Your task to perform on an android device: Go to settings Image 0: 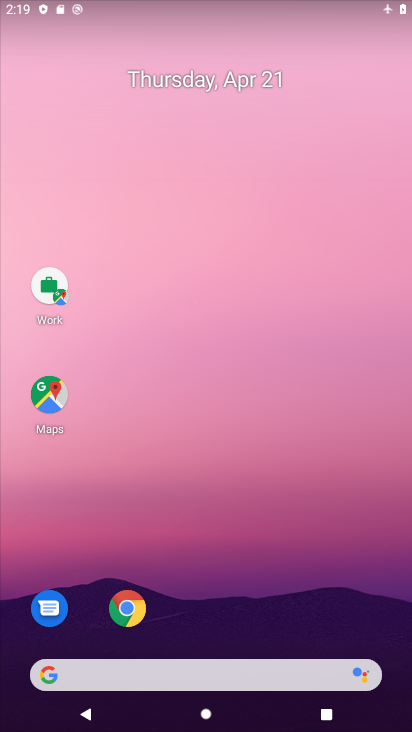
Step 0: drag from (176, 180) to (220, 1)
Your task to perform on an android device: Go to settings Image 1: 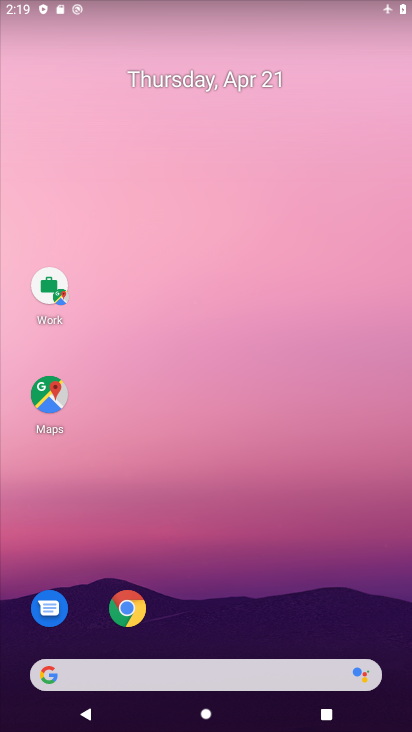
Step 1: drag from (226, 482) to (276, 50)
Your task to perform on an android device: Go to settings Image 2: 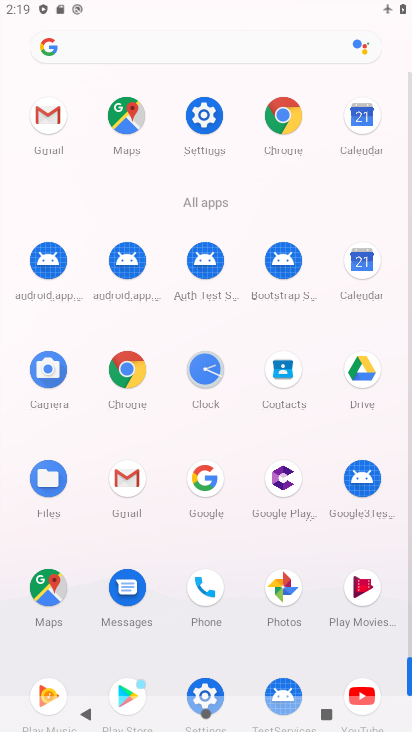
Step 2: click (217, 118)
Your task to perform on an android device: Go to settings Image 3: 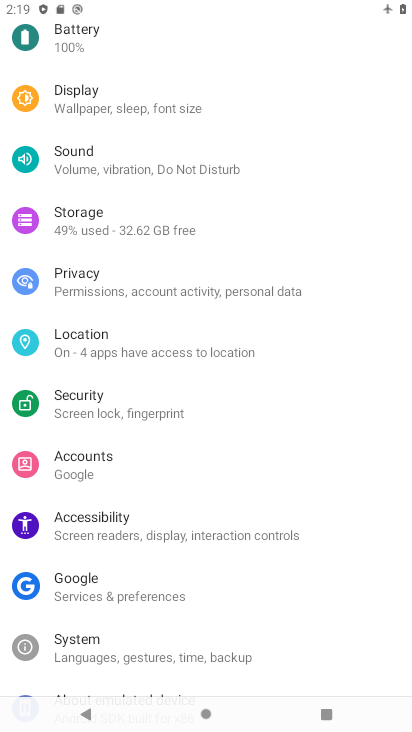
Step 3: task complete